Your task to perform on an android device: Do I have any events this weekend? Image 0: 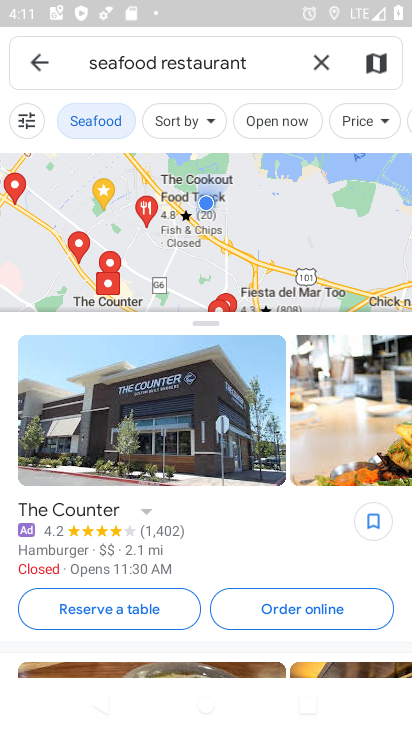
Step 0: press home button
Your task to perform on an android device: Do I have any events this weekend? Image 1: 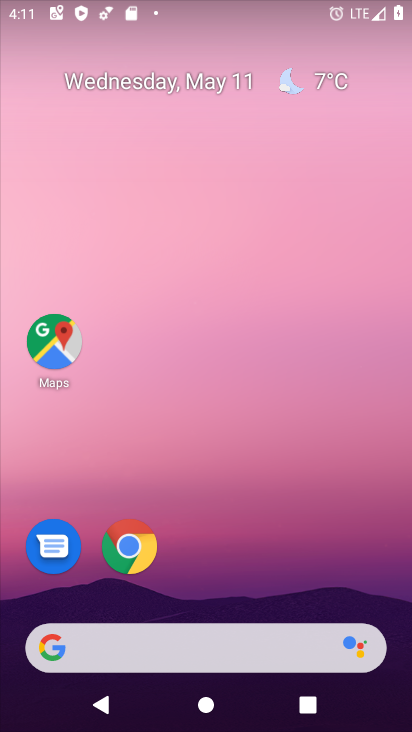
Step 1: drag from (318, 614) to (353, 133)
Your task to perform on an android device: Do I have any events this weekend? Image 2: 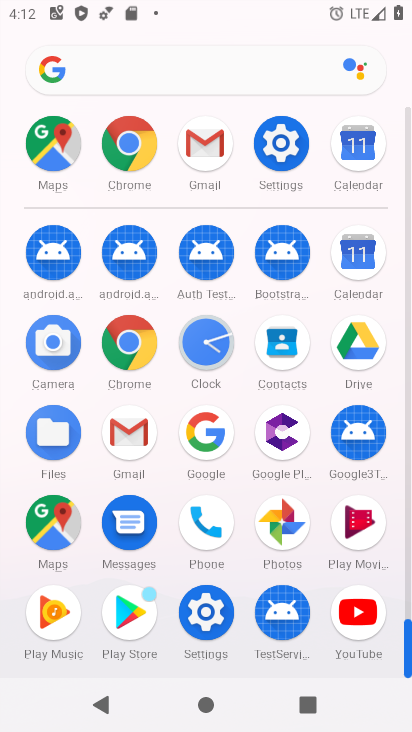
Step 2: click (360, 264)
Your task to perform on an android device: Do I have any events this weekend? Image 3: 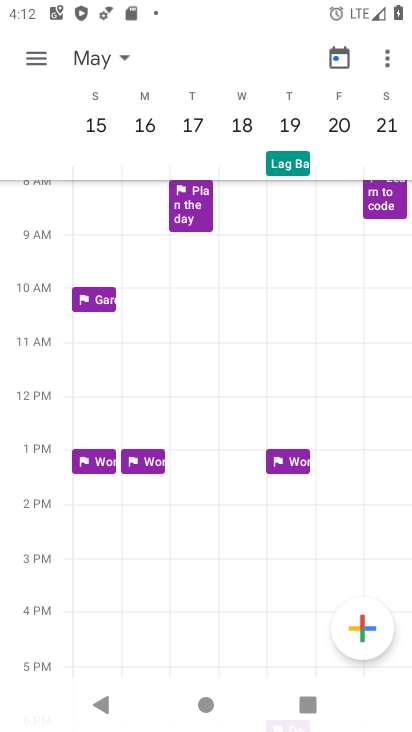
Step 3: click (128, 60)
Your task to perform on an android device: Do I have any events this weekend? Image 4: 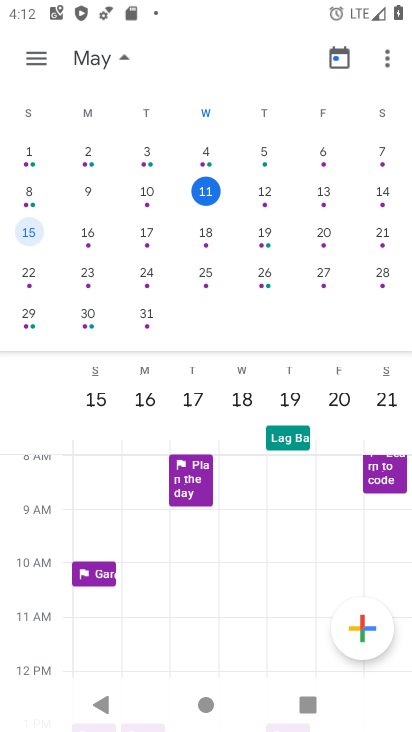
Step 4: click (381, 199)
Your task to perform on an android device: Do I have any events this weekend? Image 5: 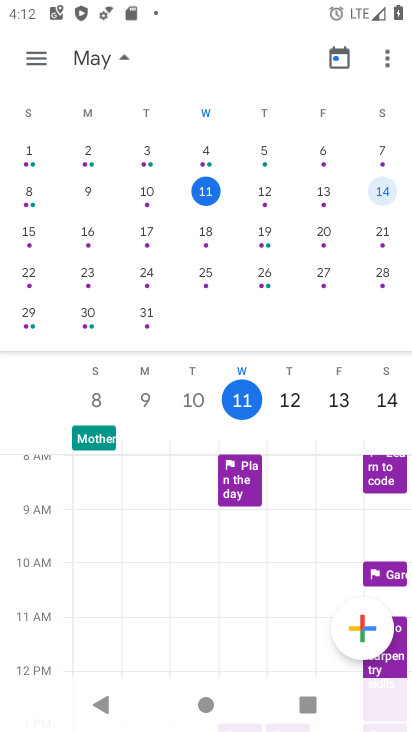
Step 5: click (401, 401)
Your task to perform on an android device: Do I have any events this weekend? Image 6: 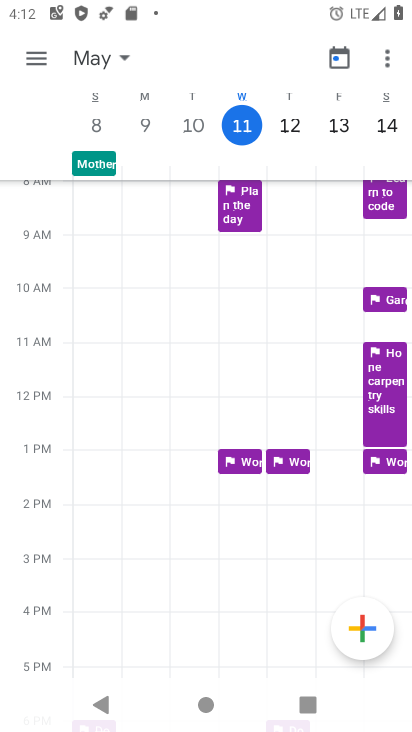
Step 6: click (389, 121)
Your task to perform on an android device: Do I have any events this weekend? Image 7: 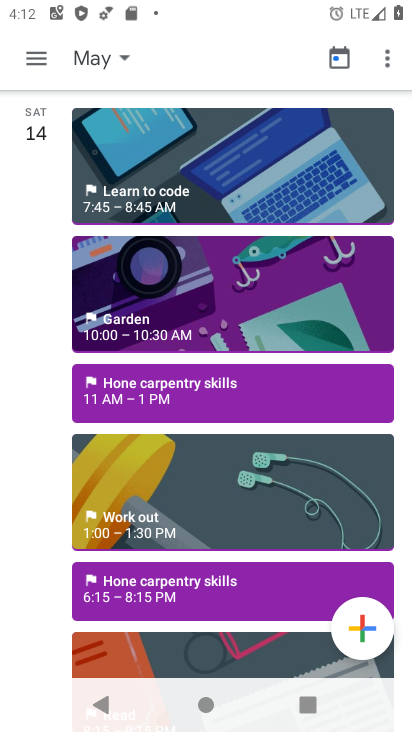
Step 7: task complete